Your task to perform on an android device: turn vacation reply on in the gmail app Image 0: 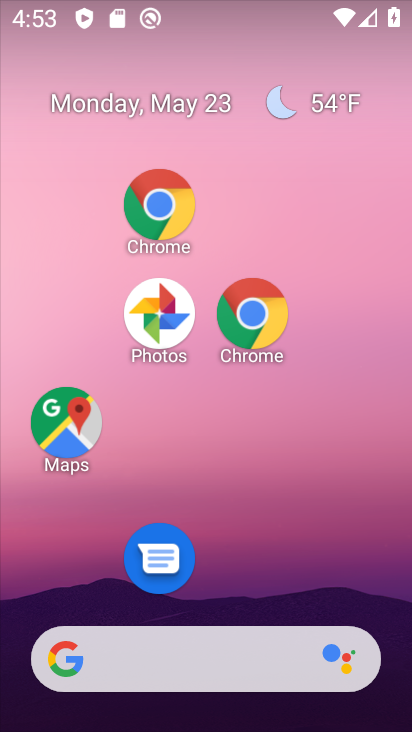
Step 0: drag from (288, 702) to (213, 126)
Your task to perform on an android device: turn vacation reply on in the gmail app Image 1: 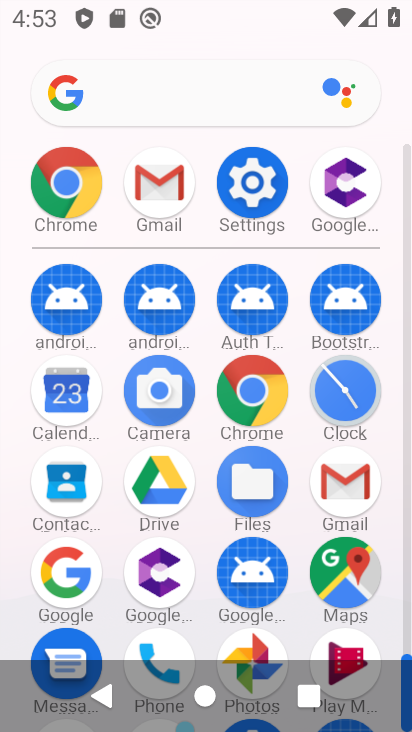
Step 1: click (333, 485)
Your task to perform on an android device: turn vacation reply on in the gmail app Image 2: 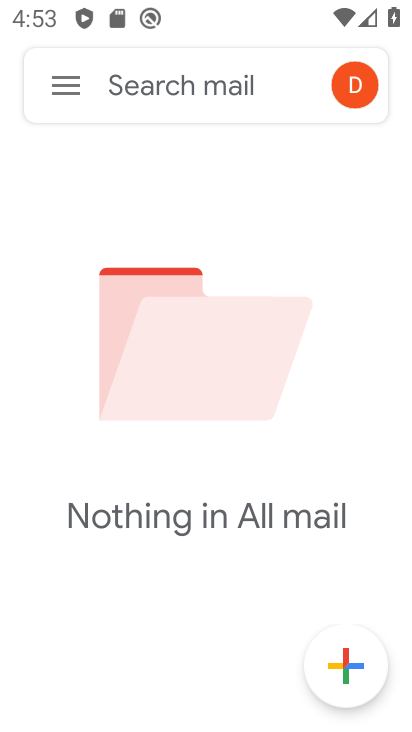
Step 2: click (62, 90)
Your task to perform on an android device: turn vacation reply on in the gmail app Image 3: 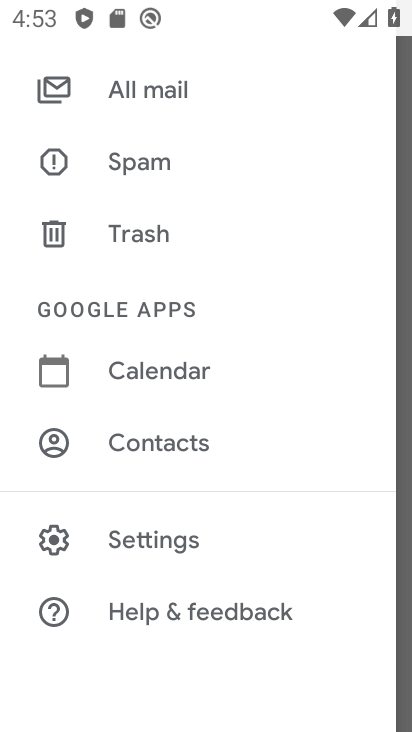
Step 3: click (161, 536)
Your task to perform on an android device: turn vacation reply on in the gmail app Image 4: 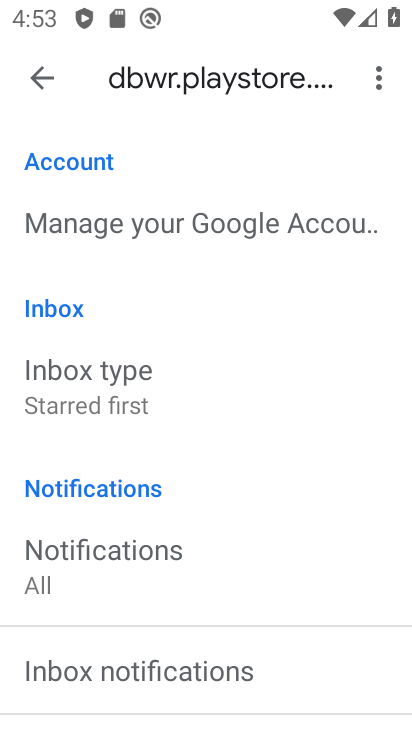
Step 4: task complete